Your task to perform on an android device: Go to eBay Image 0: 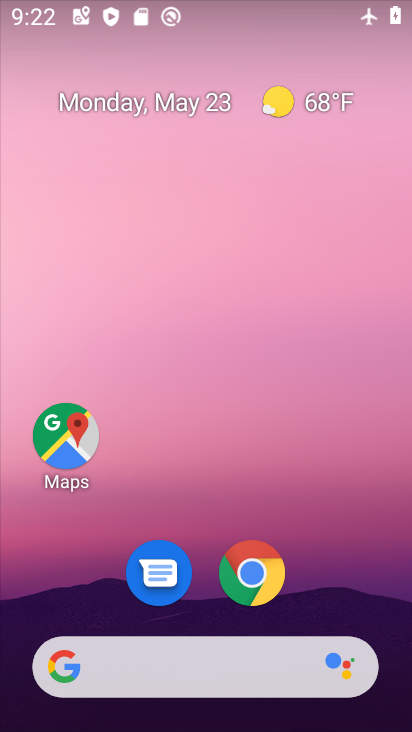
Step 0: click (262, 568)
Your task to perform on an android device: Go to eBay Image 1: 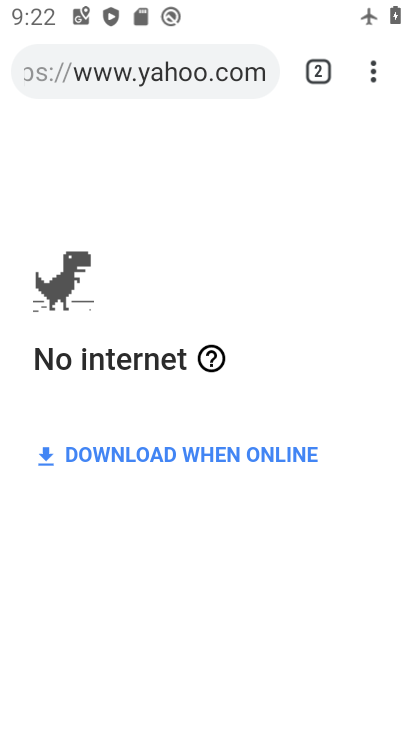
Step 1: click (258, 84)
Your task to perform on an android device: Go to eBay Image 2: 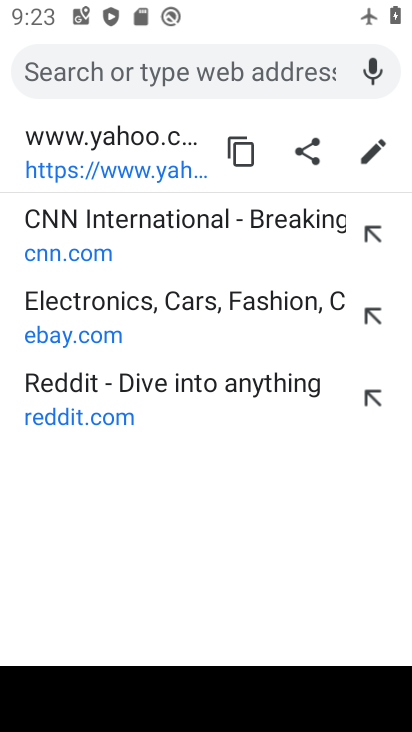
Step 2: click (97, 320)
Your task to perform on an android device: Go to eBay Image 3: 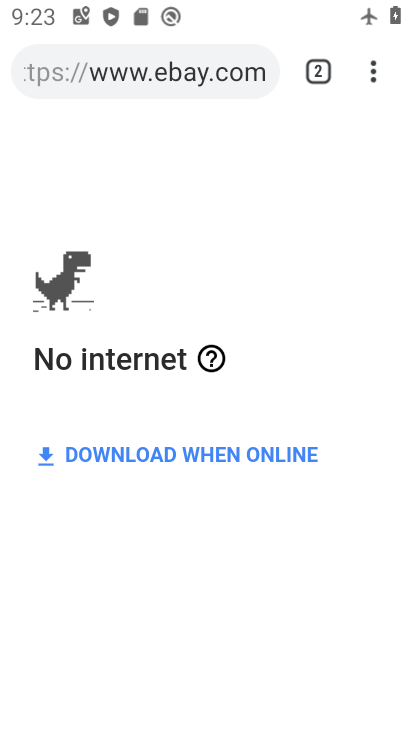
Step 3: task complete